Your task to perform on an android device: turn pop-ups off in chrome Image 0: 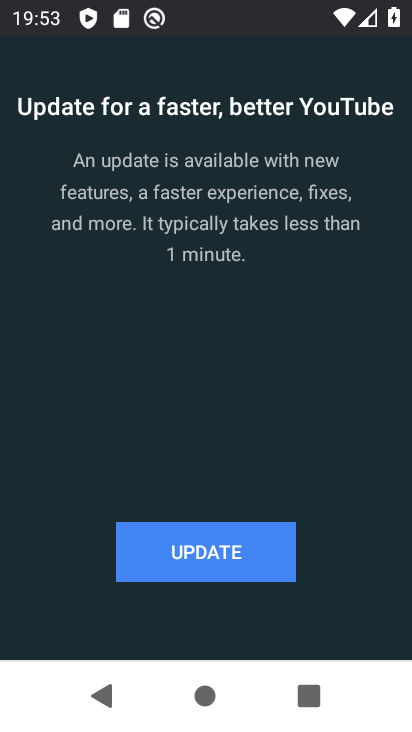
Step 0: press home button
Your task to perform on an android device: turn pop-ups off in chrome Image 1: 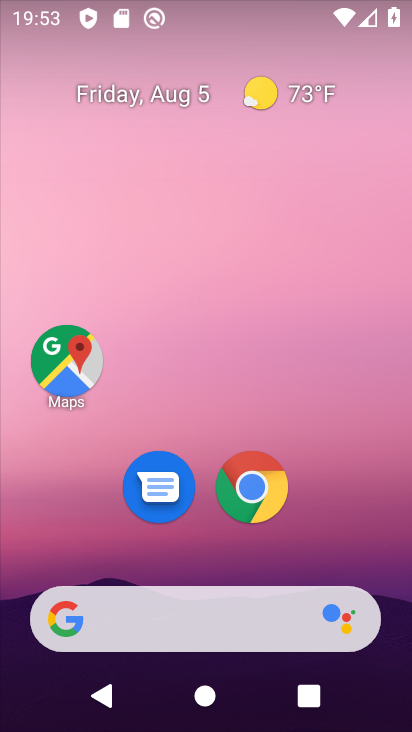
Step 1: click (248, 495)
Your task to perform on an android device: turn pop-ups off in chrome Image 2: 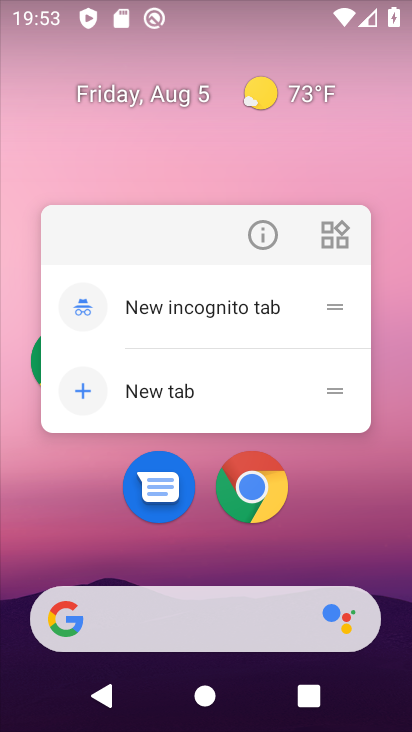
Step 2: click (254, 489)
Your task to perform on an android device: turn pop-ups off in chrome Image 3: 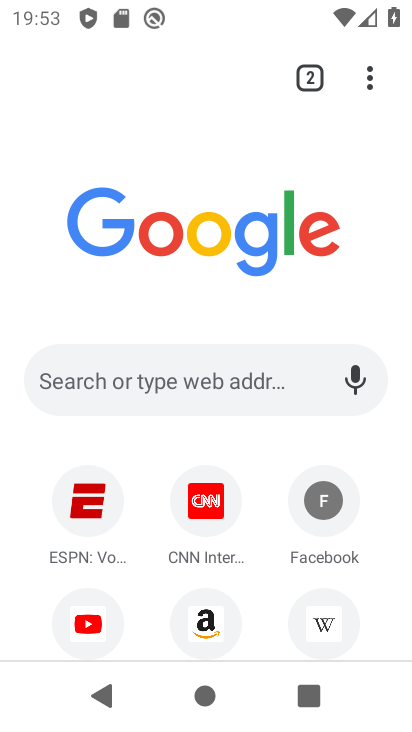
Step 3: drag from (375, 76) to (211, 544)
Your task to perform on an android device: turn pop-ups off in chrome Image 4: 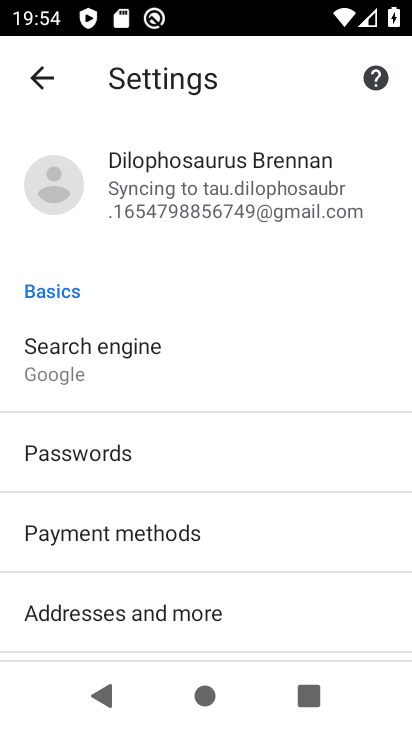
Step 4: drag from (239, 618) to (344, 128)
Your task to perform on an android device: turn pop-ups off in chrome Image 5: 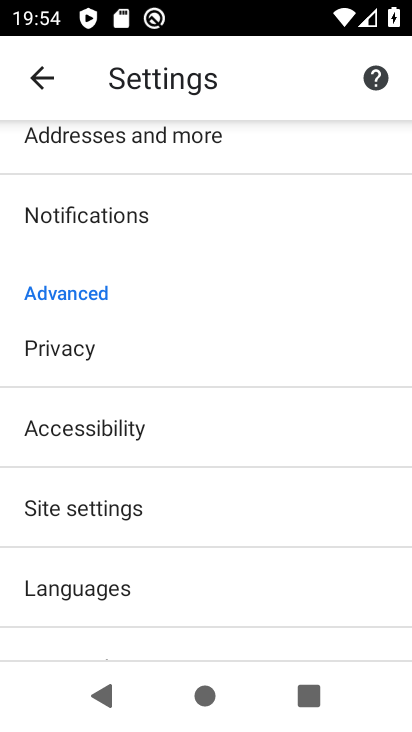
Step 5: click (119, 511)
Your task to perform on an android device: turn pop-ups off in chrome Image 6: 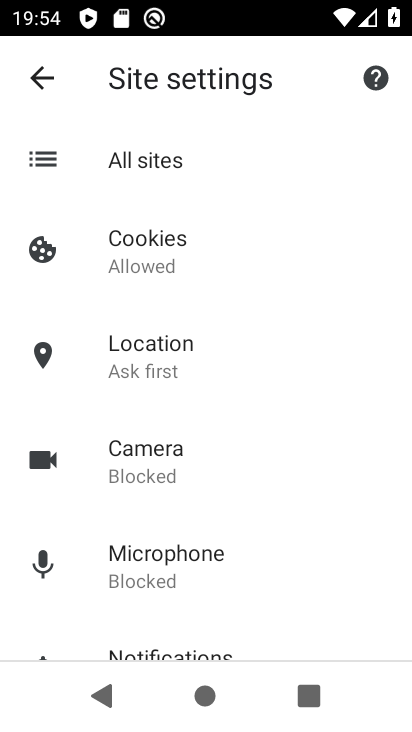
Step 6: drag from (286, 573) to (349, 178)
Your task to perform on an android device: turn pop-ups off in chrome Image 7: 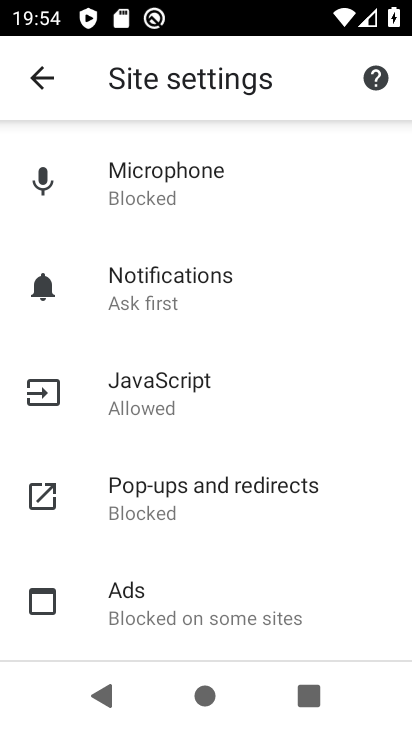
Step 7: click (213, 493)
Your task to perform on an android device: turn pop-ups off in chrome Image 8: 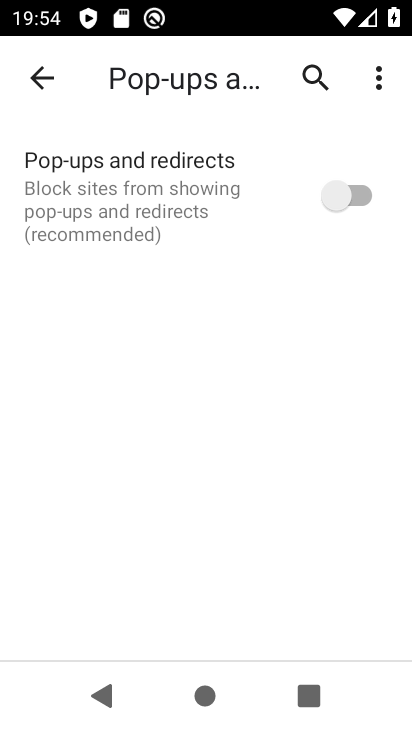
Step 8: task complete